Your task to perform on an android device: Open the calendar and show me this week's events? Image 0: 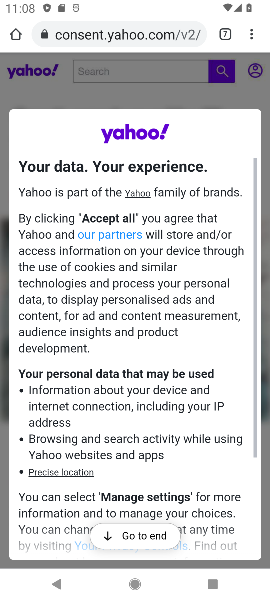
Step 0: press back button
Your task to perform on an android device: Open the calendar and show me this week's events? Image 1: 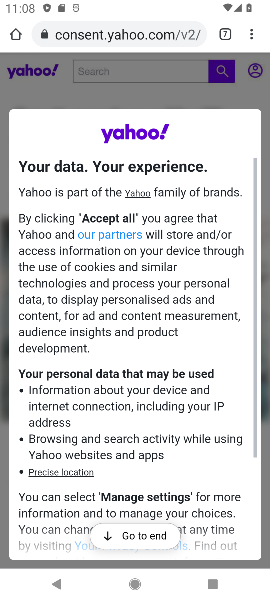
Step 1: press back button
Your task to perform on an android device: Open the calendar and show me this week's events? Image 2: 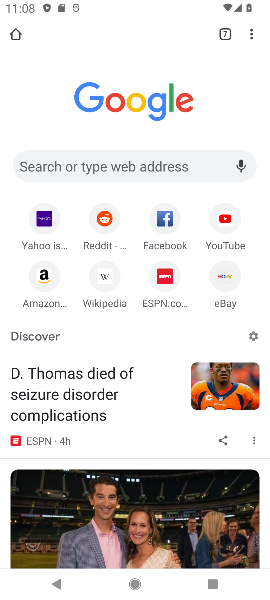
Step 2: press back button
Your task to perform on an android device: Open the calendar and show me this week's events? Image 3: 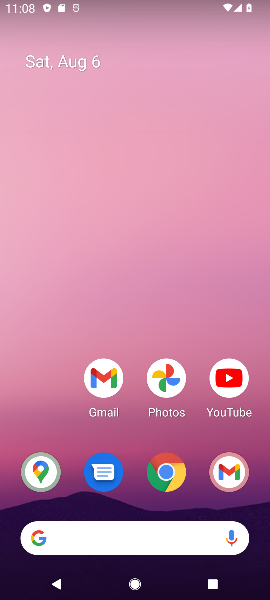
Step 3: drag from (152, 494) to (49, 130)
Your task to perform on an android device: Open the calendar and show me this week's events? Image 4: 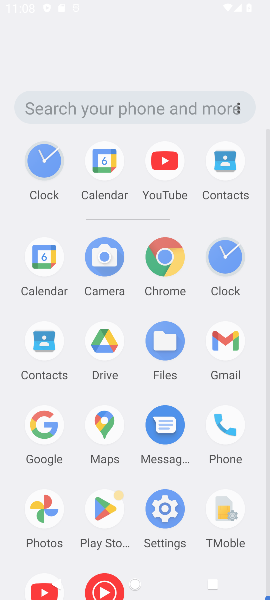
Step 4: drag from (142, 406) to (85, 86)
Your task to perform on an android device: Open the calendar and show me this week's events? Image 5: 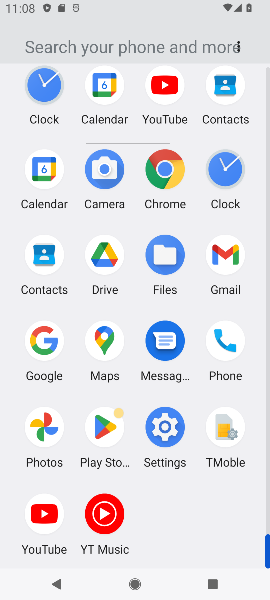
Step 5: drag from (126, 343) to (107, 220)
Your task to perform on an android device: Open the calendar and show me this week's events? Image 6: 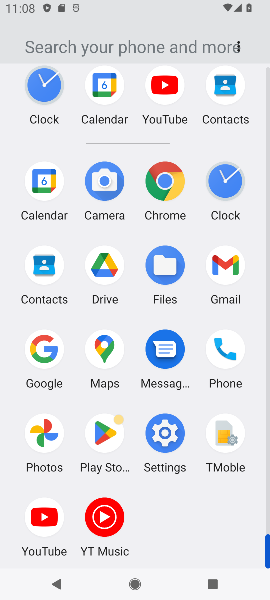
Step 6: click (45, 184)
Your task to perform on an android device: Open the calendar and show me this week's events? Image 7: 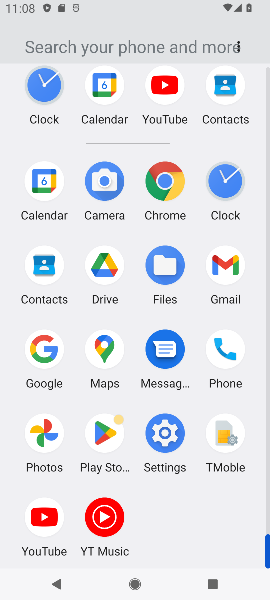
Step 7: click (45, 184)
Your task to perform on an android device: Open the calendar and show me this week's events? Image 8: 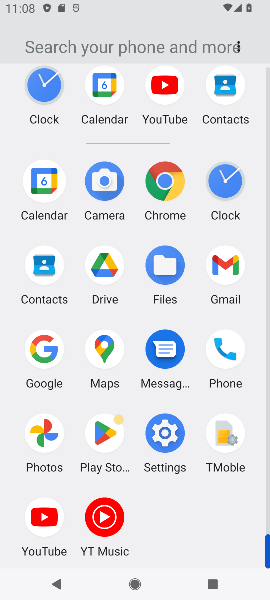
Step 8: click (47, 182)
Your task to perform on an android device: Open the calendar and show me this week's events? Image 9: 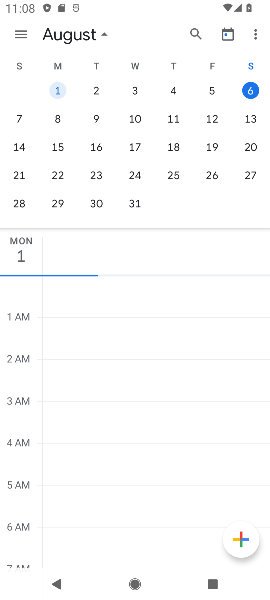
Step 9: click (47, 182)
Your task to perform on an android device: Open the calendar and show me this week's events? Image 10: 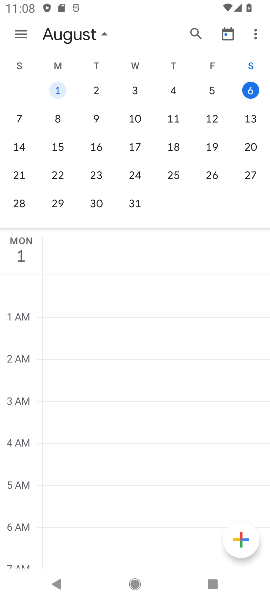
Step 10: task complete